Your task to perform on an android device: check android version Image 0: 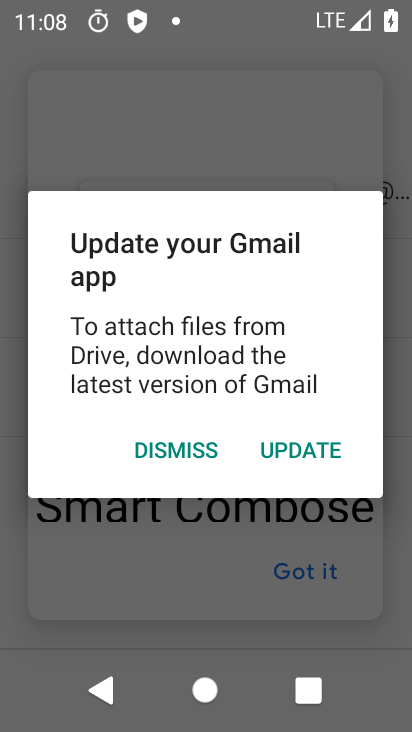
Step 0: press home button
Your task to perform on an android device: check android version Image 1: 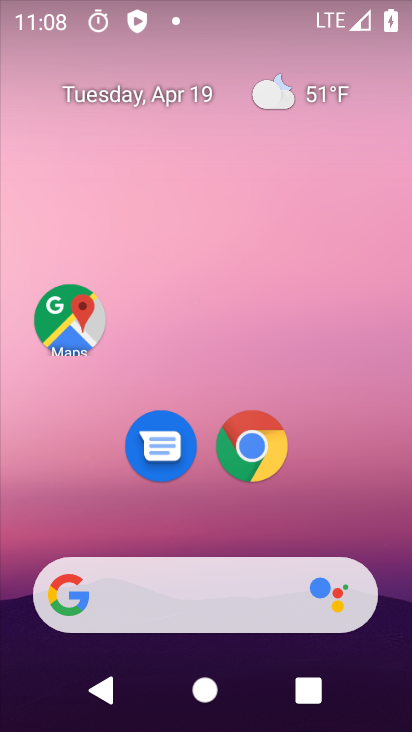
Step 1: click (288, 106)
Your task to perform on an android device: check android version Image 2: 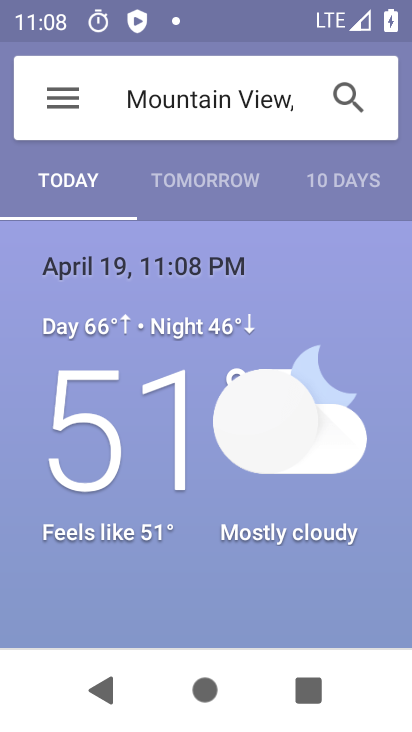
Step 2: press home button
Your task to perform on an android device: check android version Image 3: 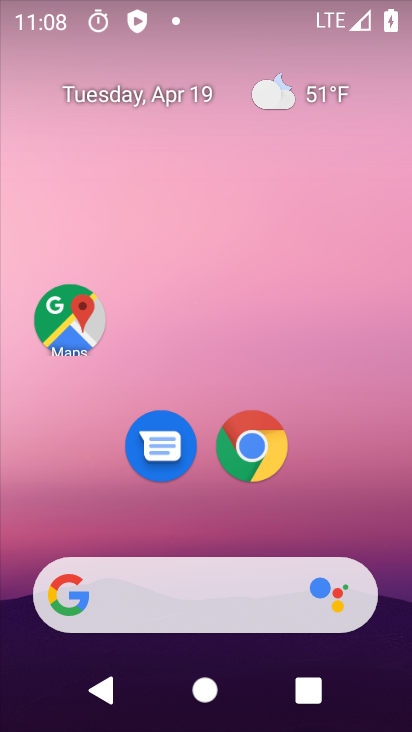
Step 3: drag from (376, 356) to (379, 133)
Your task to perform on an android device: check android version Image 4: 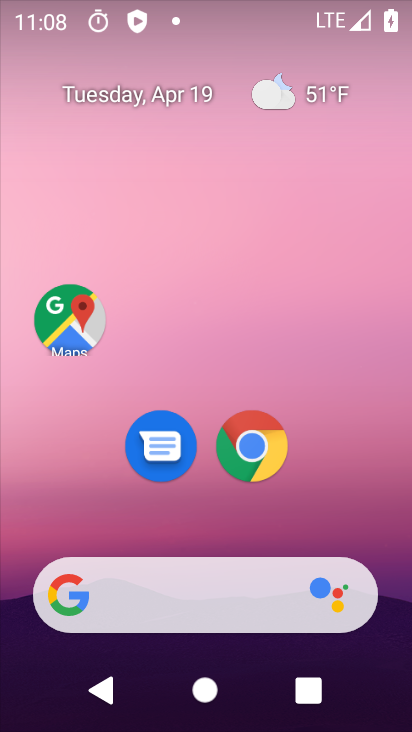
Step 4: drag from (356, 438) to (285, 111)
Your task to perform on an android device: check android version Image 5: 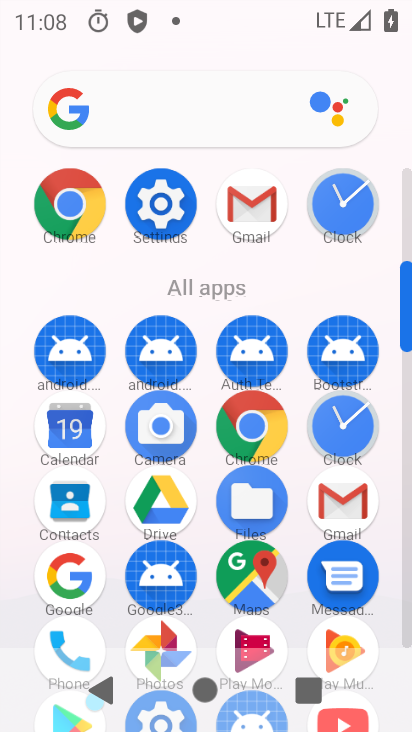
Step 5: click (161, 203)
Your task to perform on an android device: check android version Image 6: 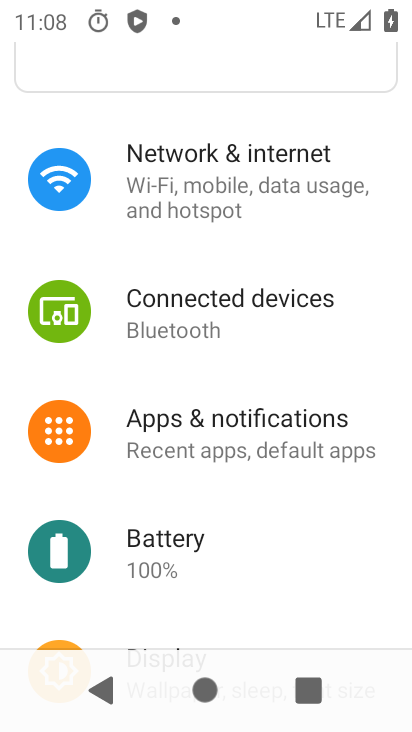
Step 6: drag from (353, 558) to (354, 274)
Your task to perform on an android device: check android version Image 7: 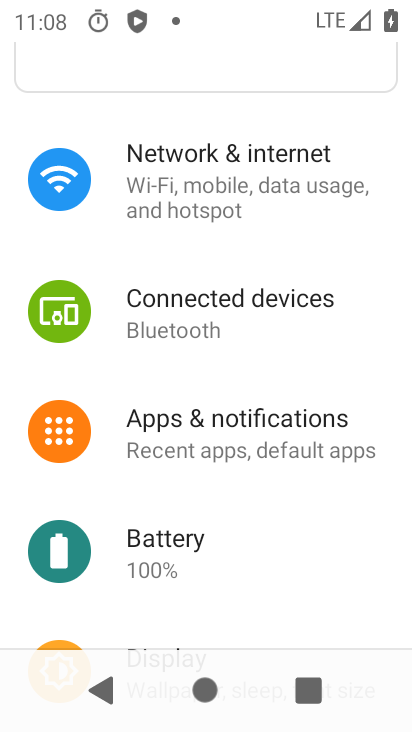
Step 7: drag from (352, 591) to (360, 166)
Your task to perform on an android device: check android version Image 8: 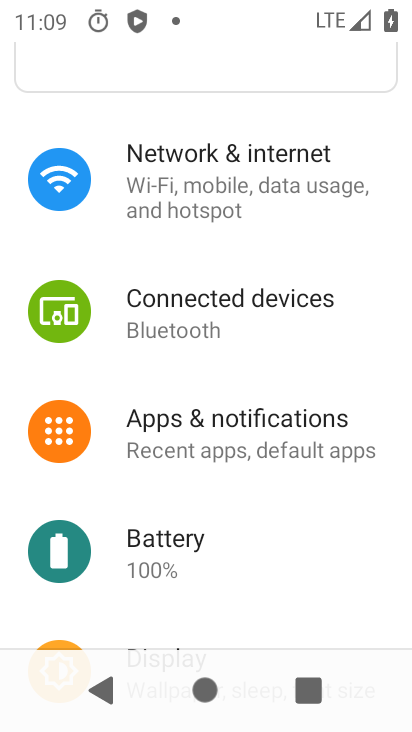
Step 8: drag from (378, 574) to (374, 198)
Your task to perform on an android device: check android version Image 9: 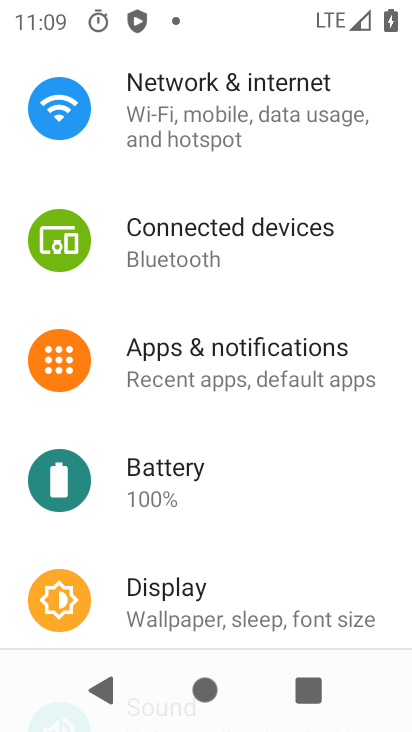
Step 9: drag from (363, 507) to (364, 229)
Your task to perform on an android device: check android version Image 10: 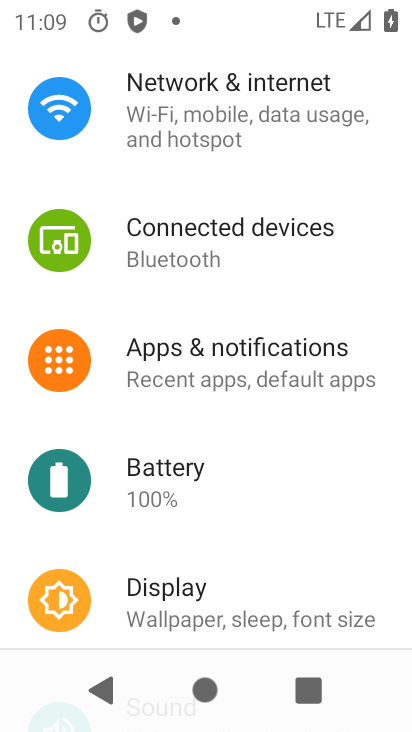
Step 10: drag from (369, 498) to (381, 153)
Your task to perform on an android device: check android version Image 11: 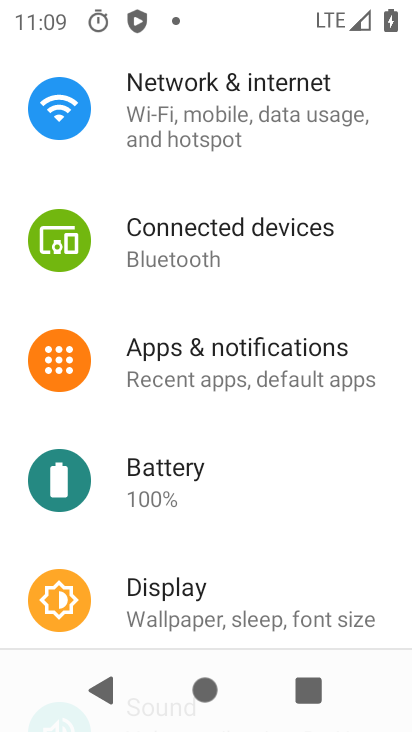
Step 11: drag from (381, 520) to (386, 215)
Your task to perform on an android device: check android version Image 12: 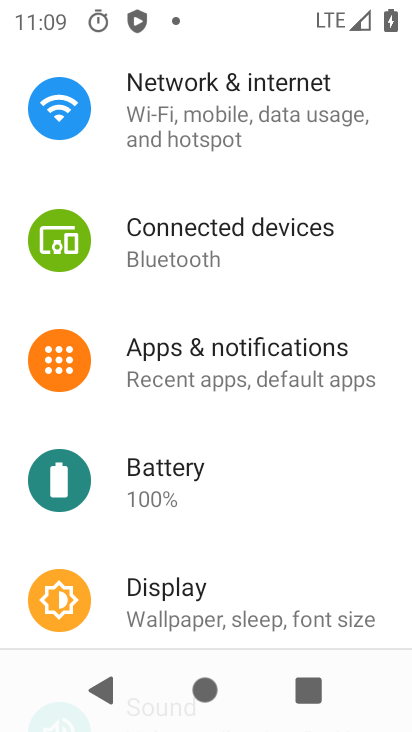
Step 12: drag from (389, 620) to (384, 216)
Your task to perform on an android device: check android version Image 13: 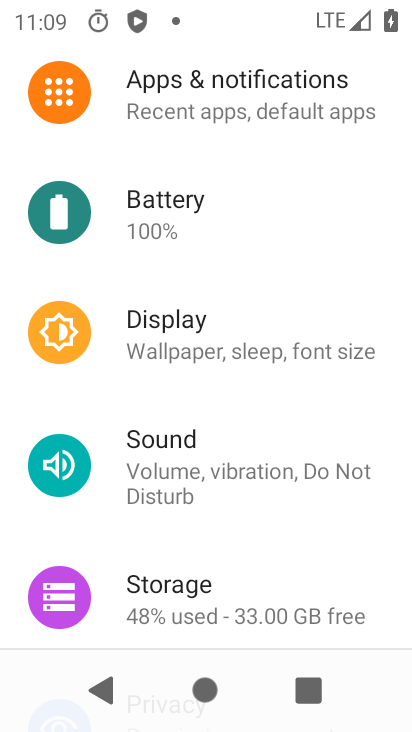
Step 13: drag from (379, 545) to (386, 229)
Your task to perform on an android device: check android version Image 14: 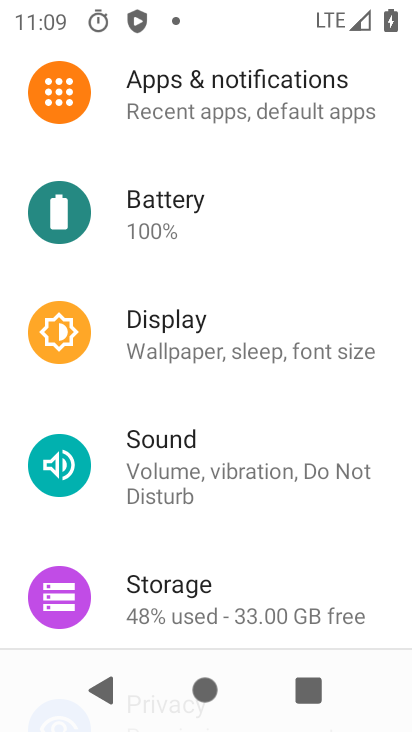
Step 14: drag from (400, 262) to (402, 151)
Your task to perform on an android device: check android version Image 15: 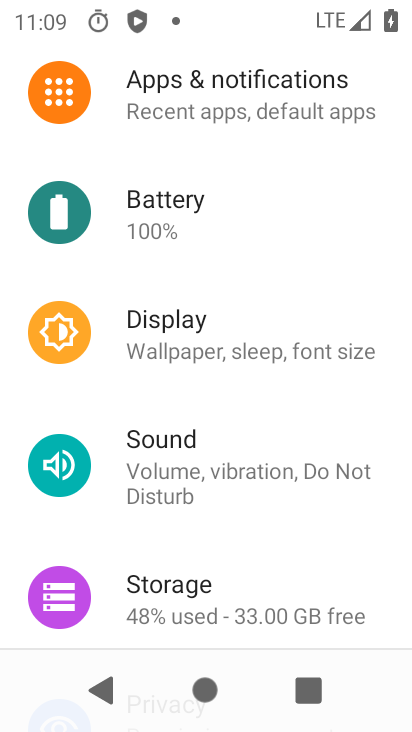
Step 15: drag from (382, 629) to (350, 162)
Your task to perform on an android device: check android version Image 16: 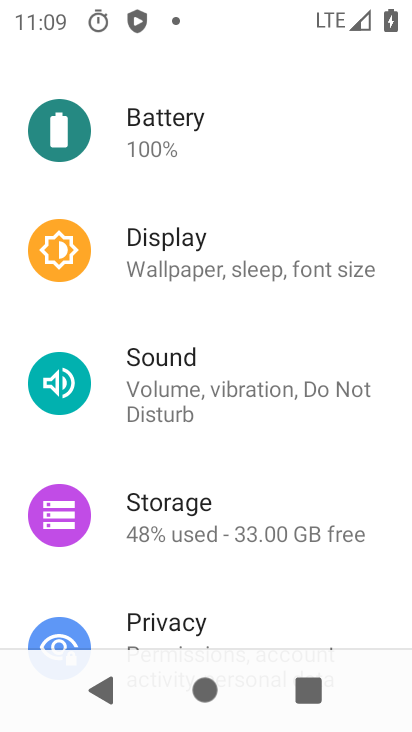
Step 16: drag from (379, 585) to (349, 190)
Your task to perform on an android device: check android version Image 17: 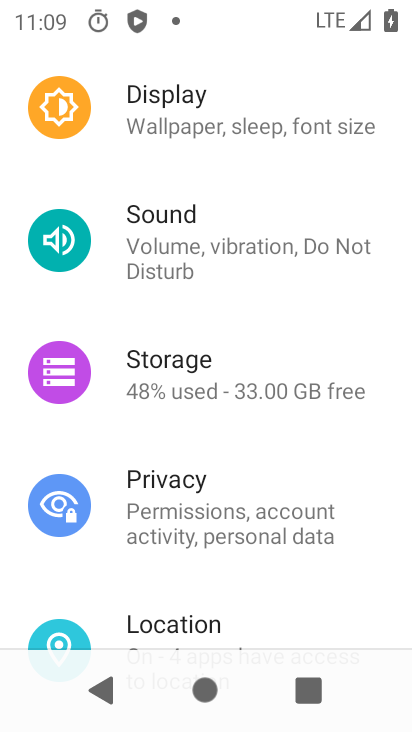
Step 17: drag from (373, 539) to (379, 5)
Your task to perform on an android device: check android version Image 18: 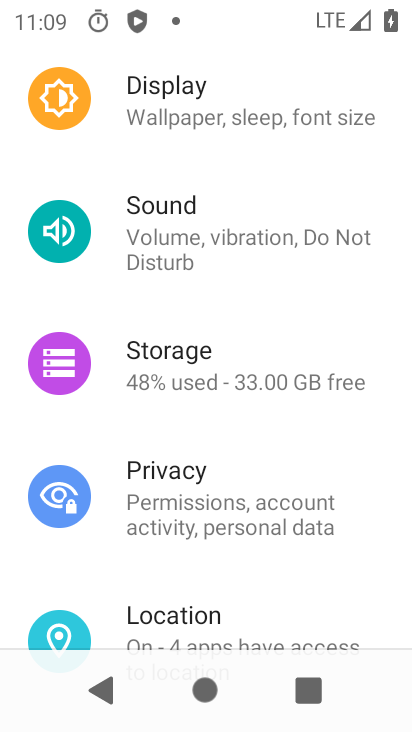
Step 18: drag from (374, 627) to (388, 279)
Your task to perform on an android device: check android version Image 19: 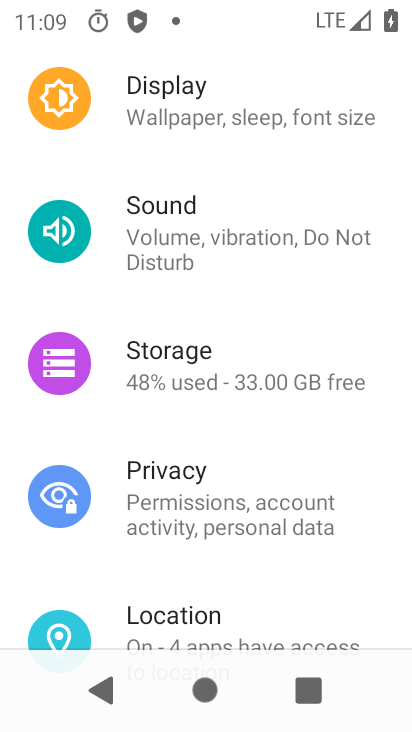
Step 19: drag from (377, 627) to (375, 187)
Your task to perform on an android device: check android version Image 20: 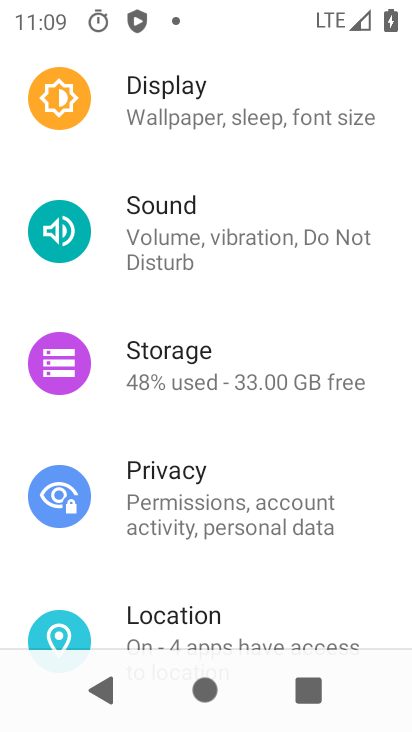
Step 20: drag from (368, 587) to (364, 244)
Your task to perform on an android device: check android version Image 21: 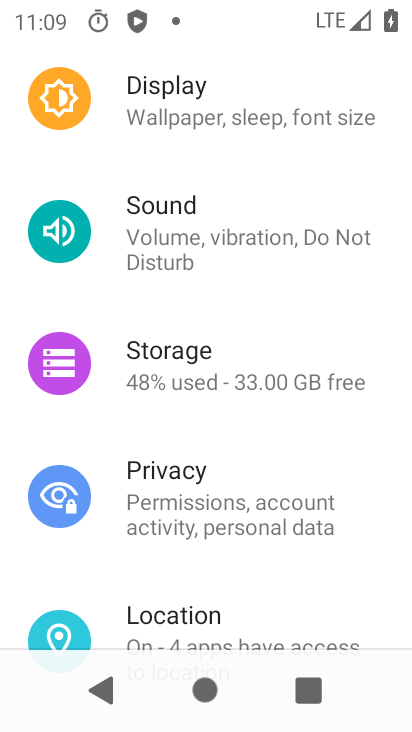
Step 21: drag from (359, 366) to (360, 242)
Your task to perform on an android device: check android version Image 22: 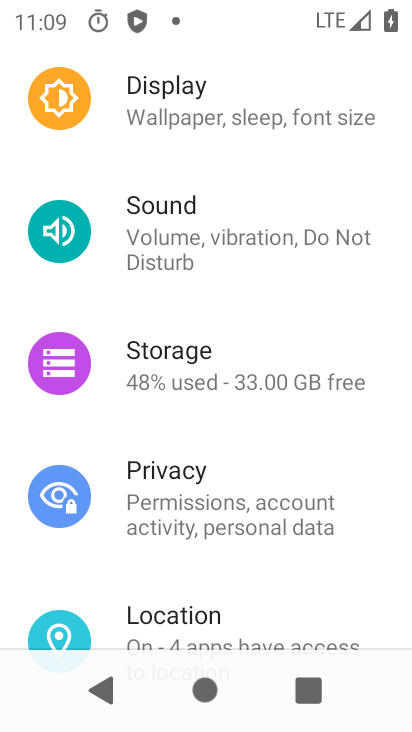
Step 22: drag from (377, 527) to (364, 133)
Your task to perform on an android device: check android version Image 23: 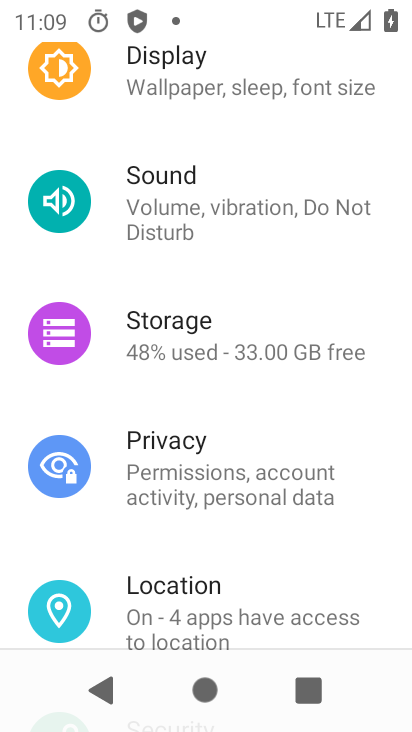
Step 23: drag from (391, 558) to (370, 228)
Your task to perform on an android device: check android version Image 24: 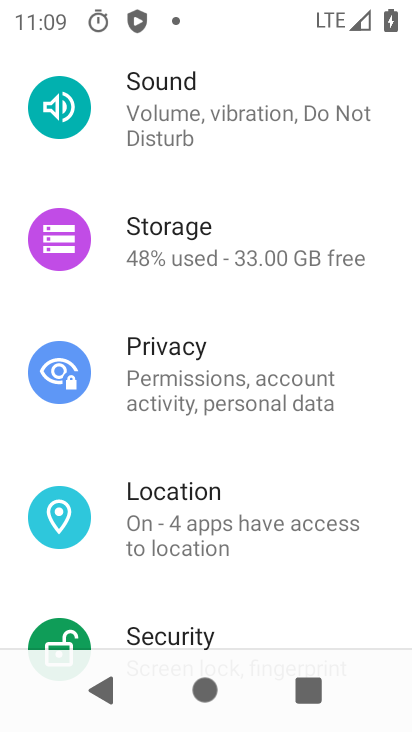
Step 24: drag from (359, 255) to (353, 174)
Your task to perform on an android device: check android version Image 25: 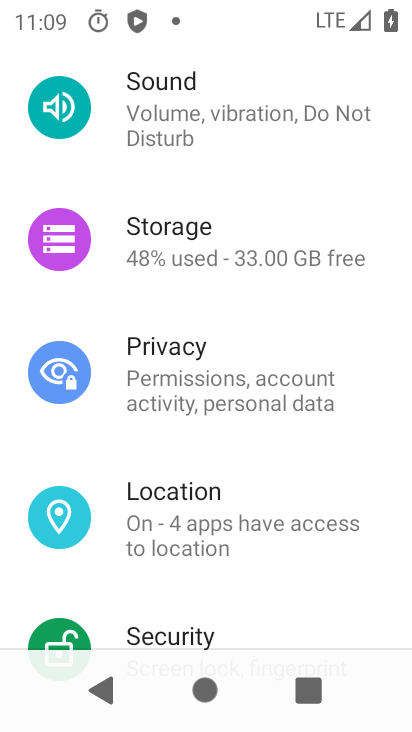
Step 25: drag from (374, 583) to (402, 92)
Your task to perform on an android device: check android version Image 26: 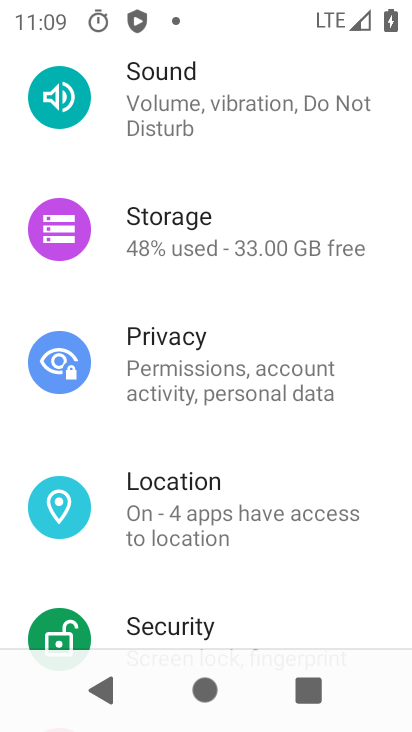
Step 26: drag from (385, 601) to (372, 330)
Your task to perform on an android device: check android version Image 27: 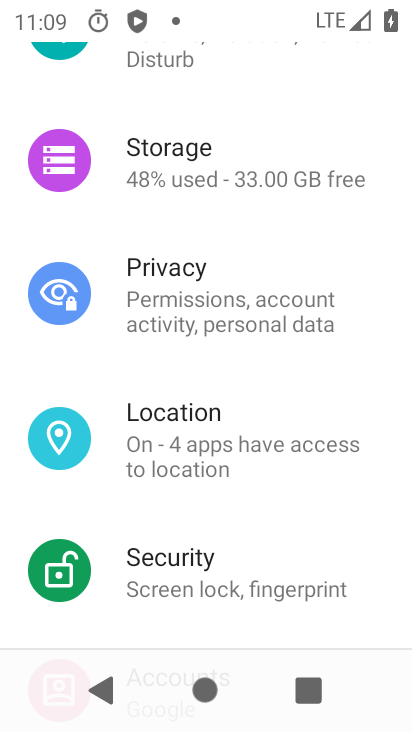
Step 27: drag from (360, 525) to (357, 299)
Your task to perform on an android device: check android version Image 28: 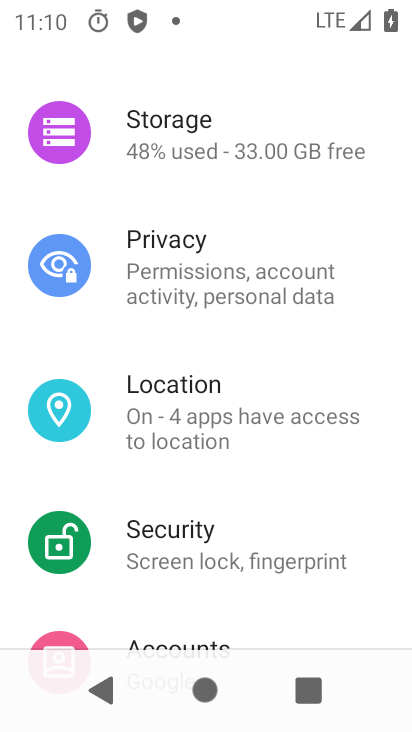
Step 28: drag from (375, 551) to (358, 196)
Your task to perform on an android device: check android version Image 29: 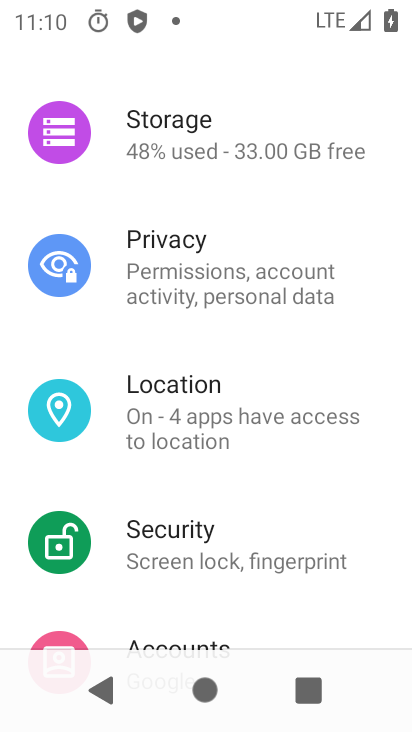
Step 29: drag from (356, 571) to (341, 275)
Your task to perform on an android device: check android version Image 30: 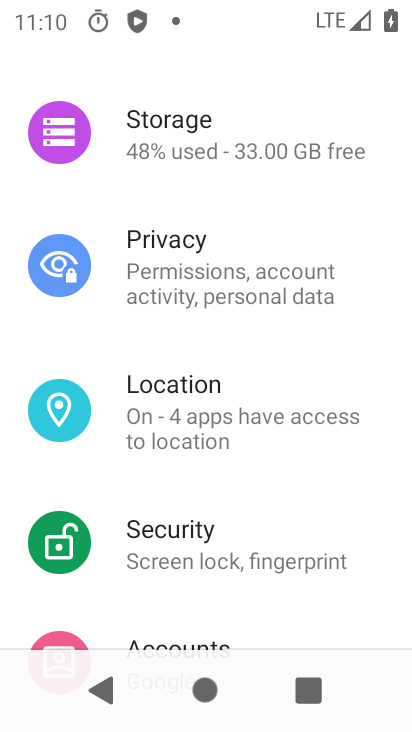
Step 30: drag from (368, 554) to (374, 255)
Your task to perform on an android device: check android version Image 31: 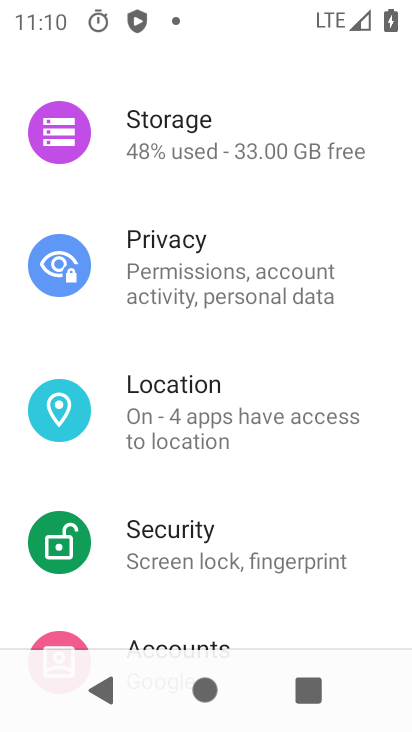
Step 31: drag from (374, 547) to (373, 160)
Your task to perform on an android device: check android version Image 32: 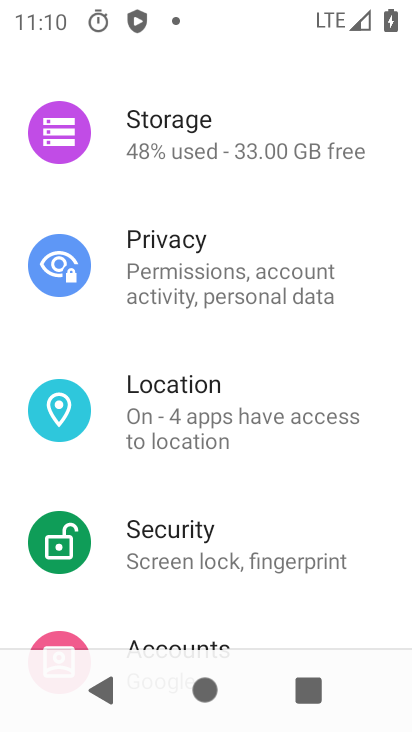
Step 32: drag from (376, 602) to (354, 140)
Your task to perform on an android device: check android version Image 33: 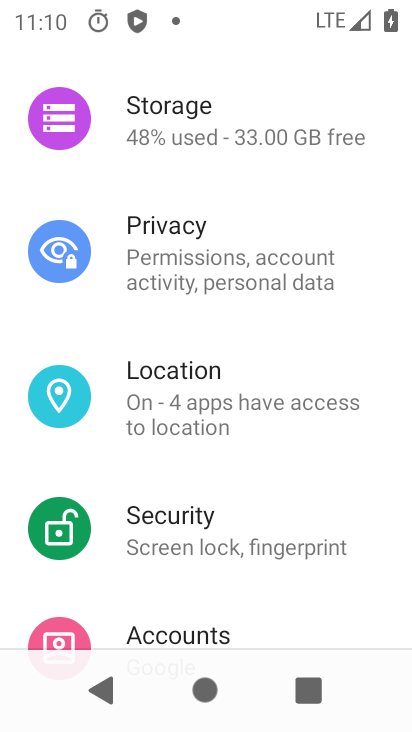
Step 33: drag from (369, 596) to (332, 183)
Your task to perform on an android device: check android version Image 34: 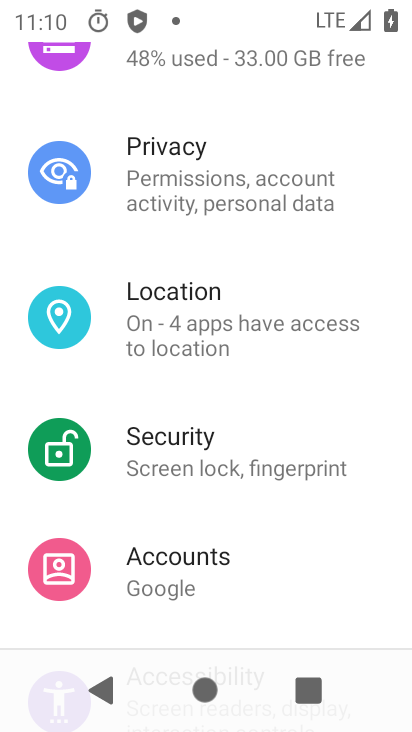
Step 34: drag from (384, 388) to (374, 265)
Your task to perform on an android device: check android version Image 35: 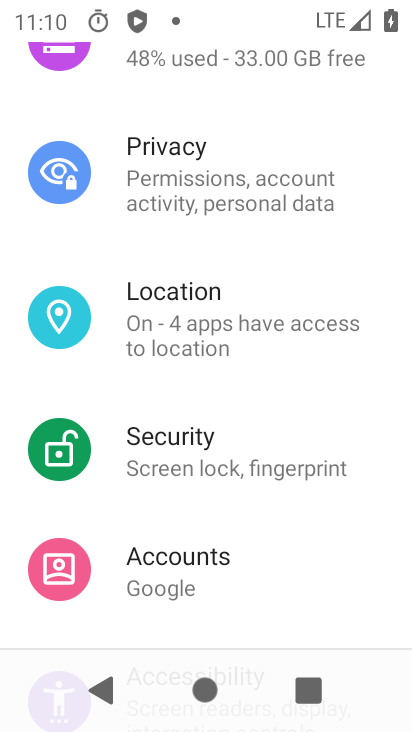
Step 35: drag from (372, 422) to (345, 159)
Your task to perform on an android device: check android version Image 36: 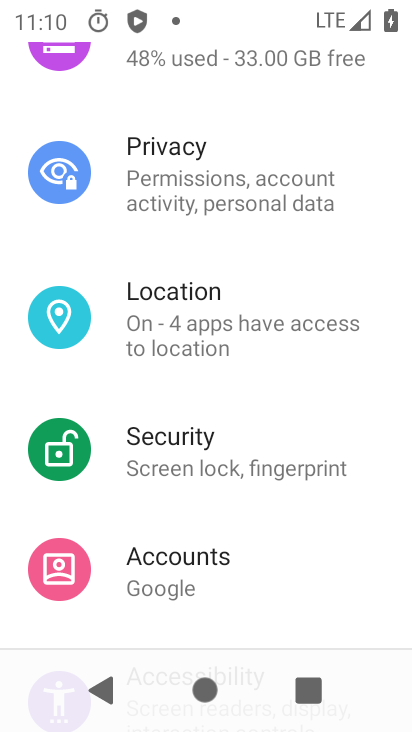
Step 36: drag from (345, 436) to (348, 154)
Your task to perform on an android device: check android version Image 37: 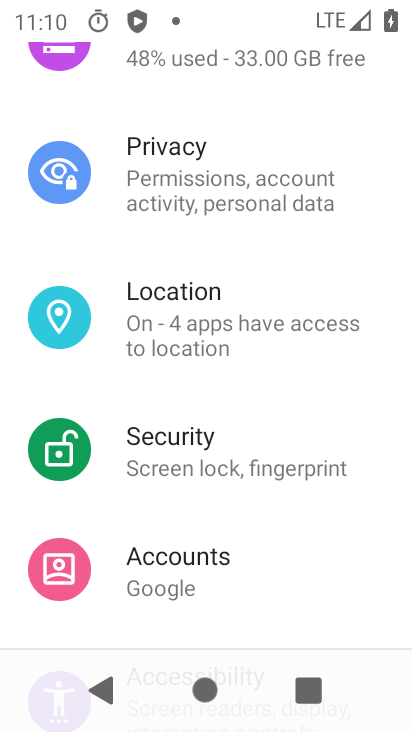
Step 37: drag from (363, 401) to (364, 114)
Your task to perform on an android device: check android version Image 38: 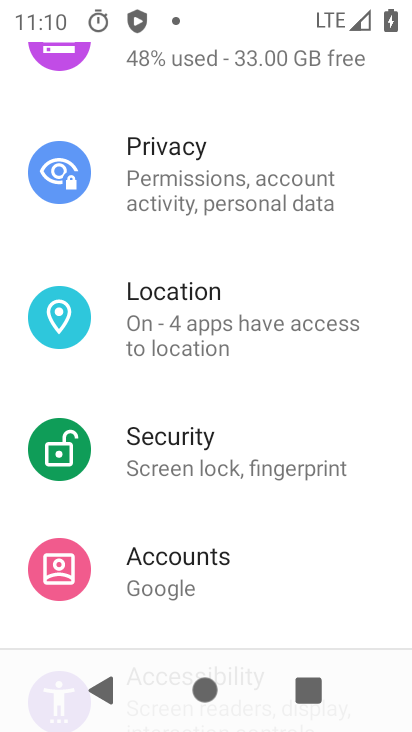
Step 38: drag from (344, 253) to (343, 129)
Your task to perform on an android device: check android version Image 39: 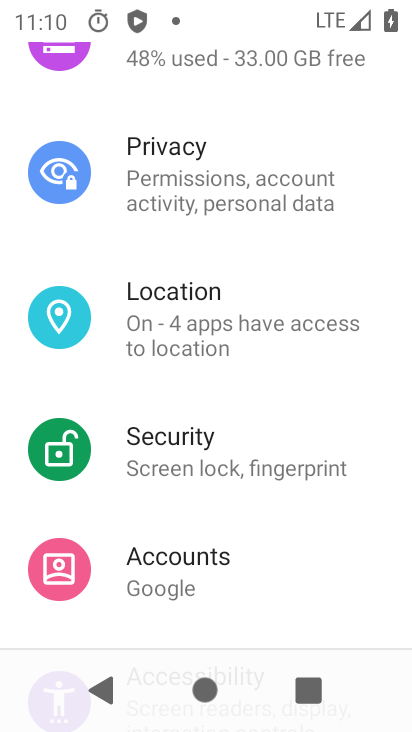
Step 39: drag from (368, 276) to (373, 98)
Your task to perform on an android device: check android version Image 40: 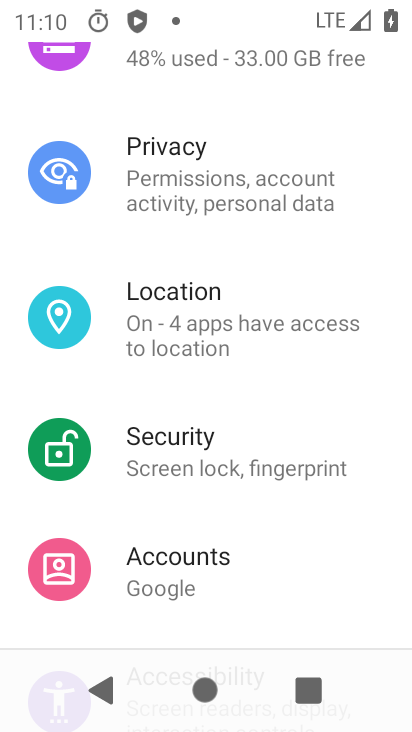
Step 40: drag from (360, 608) to (325, 183)
Your task to perform on an android device: check android version Image 41: 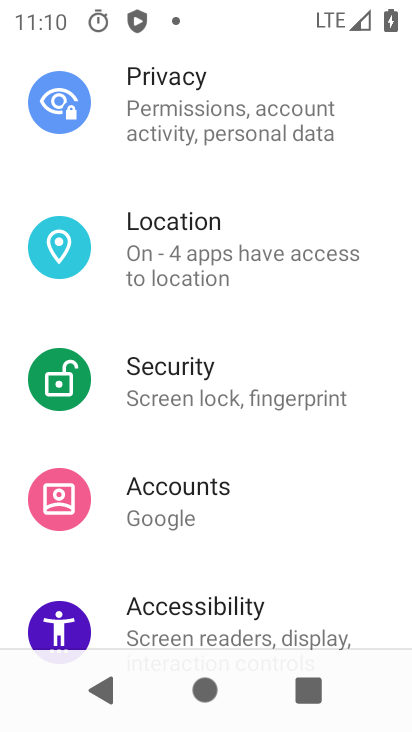
Step 41: drag from (382, 603) to (360, 182)
Your task to perform on an android device: check android version Image 42: 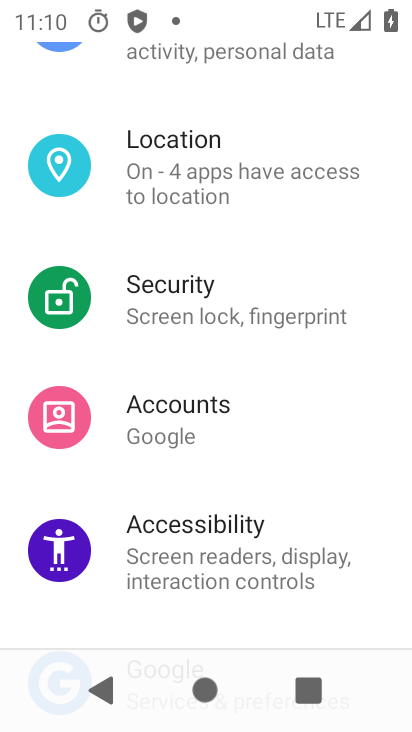
Step 42: drag from (384, 322) to (396, 140)
Your task to perform on an android device: check android version Image 43: 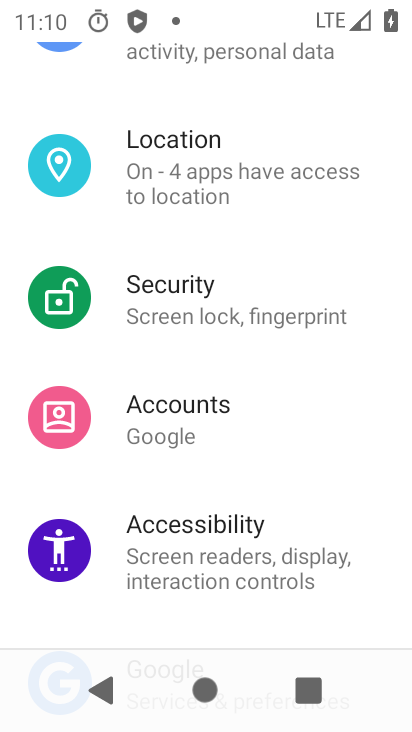
Step 43: drag from (384, 328) to (381, 155)
Your task to perform on an android device: check android version Image 44: 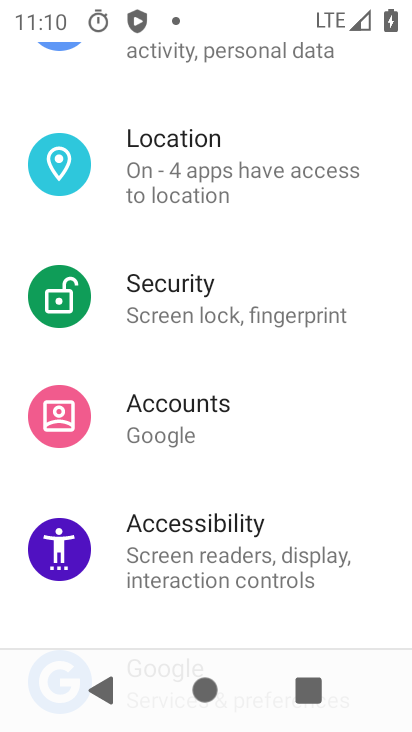
Step 44: drag from (386, 536) to (400, 161)
Your task to perform on an android device: check android version Image 45: 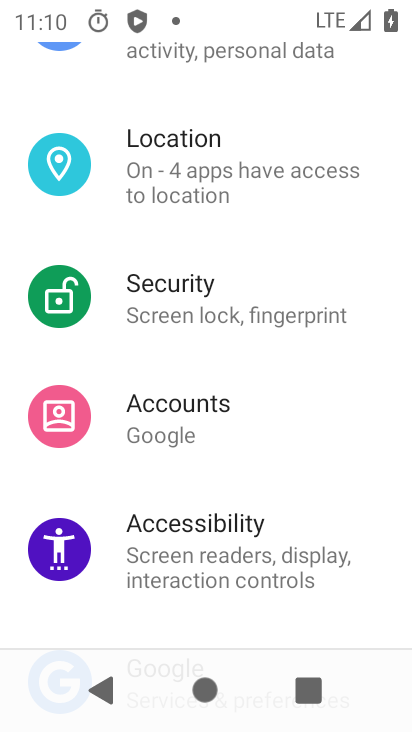
Step 45: drag from (410, 455) to (408, 160)
Your task to perform on an android device: check android version Image 46: 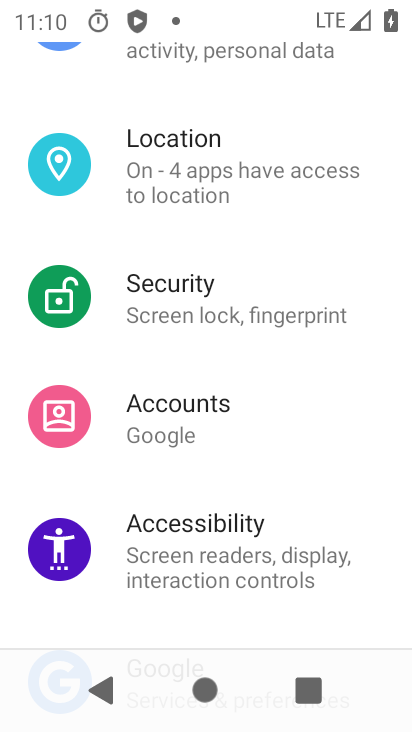
Step 46: drag from (395, 464) to (391, 178)
Your task to perform on an android device: check android version Image 47: 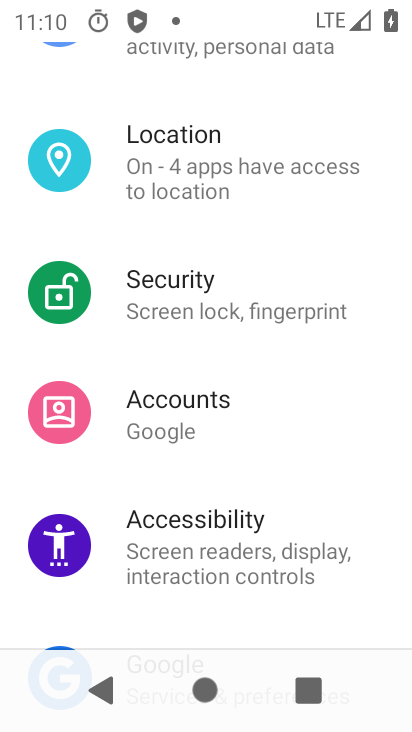
Step 47: drag from (365, 585) to (373, 171)
Your task to perform on an android device: check android version Image 48: 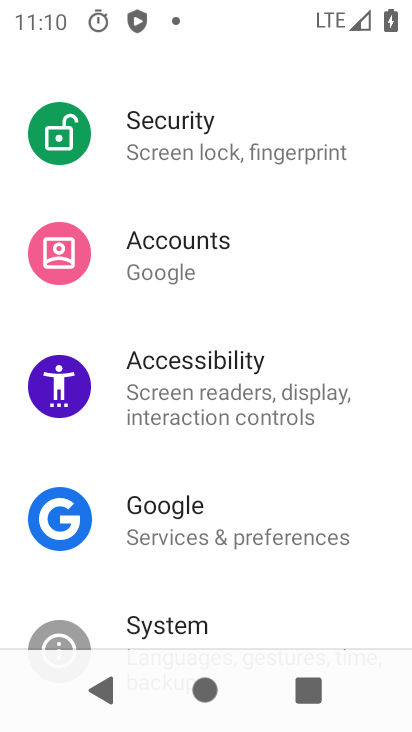
Step 48: drag from (347, 597) to (364, 194)
Your task to perform on an android device: check android version Image 49: 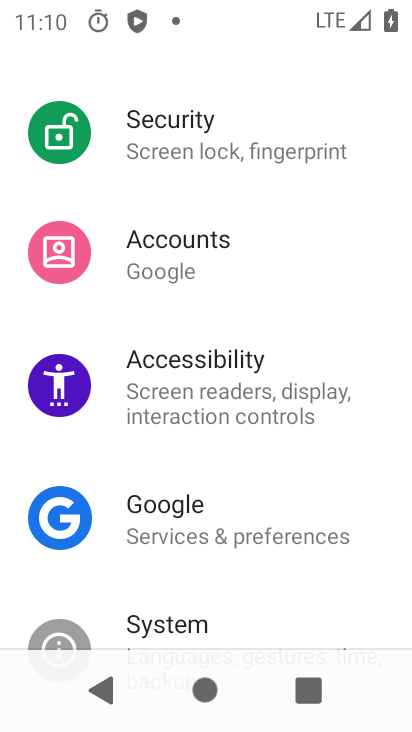
Step 49: drag from (377, 399) to (371, 116)
Your task to perform on an android device: check android version Image 50: 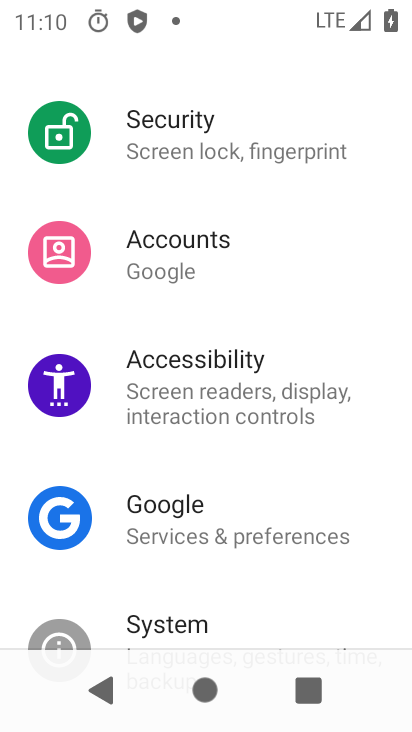
Step 50: drag from (387, 635) to (394, 202)
Your task to perform on an android device: check android version Image 51: 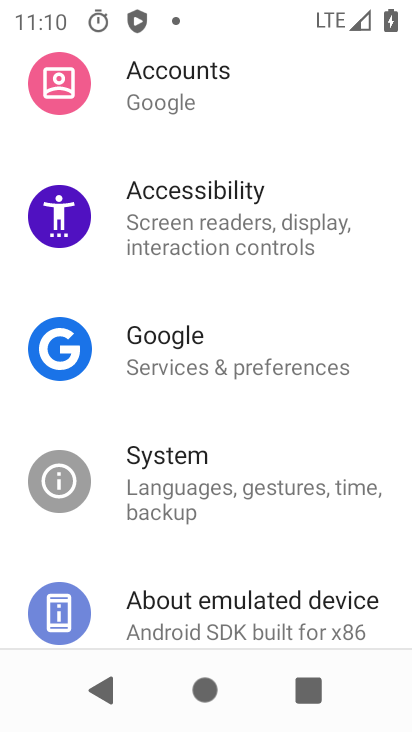
Step 51: click (156, 609)
Your task to perform on an android device: check android version Image 52: 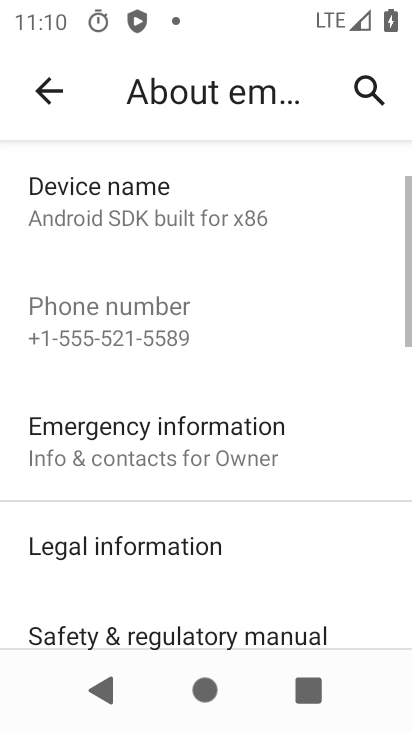
Step 52: drag from (391, 594) to (383, 93)
Your task to perform on an android device: check android version Image 53: 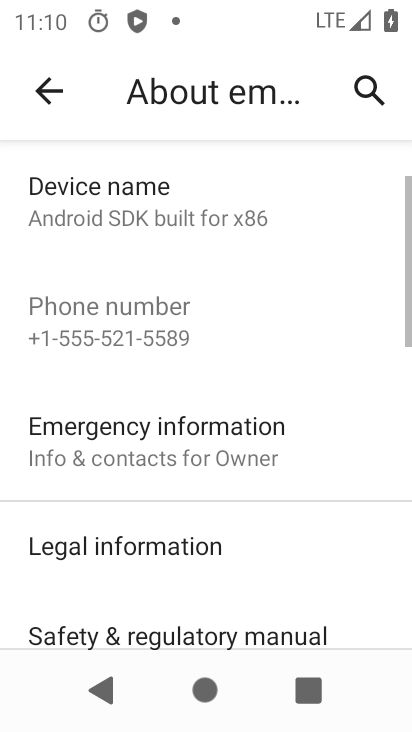
Step 53: drag from (355, 546) to (366, 232)
Your task to perform on an android device: check android version Image 54: 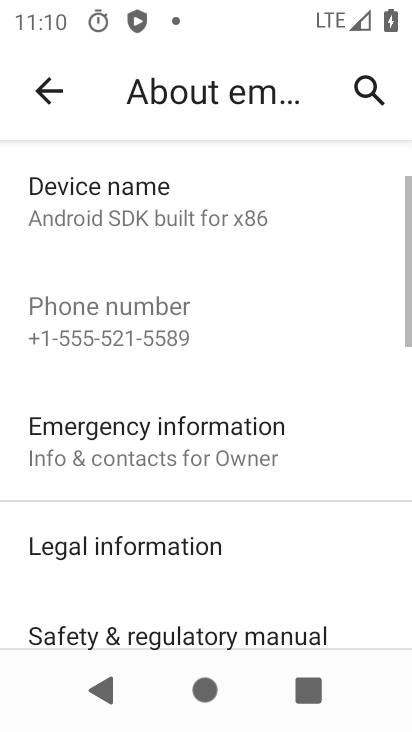
Step 54: drag from (380, 612) to (388, 220)
Your task to perform on an android device: check android version Image 55: 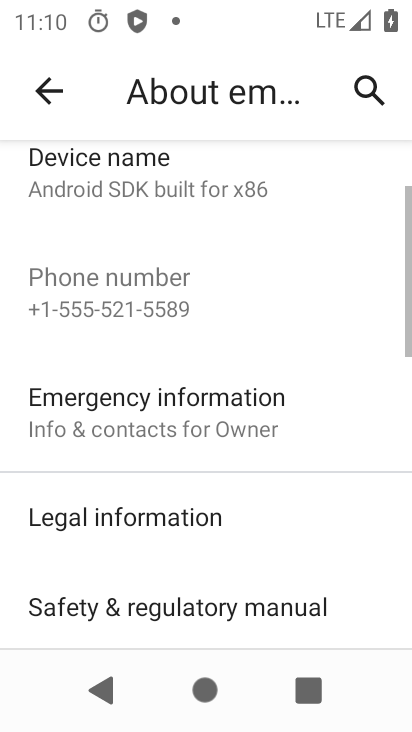
Step 55: drag from (378, 621) to (370, 252)
Your task to perform on an android device: check android version Image 56: 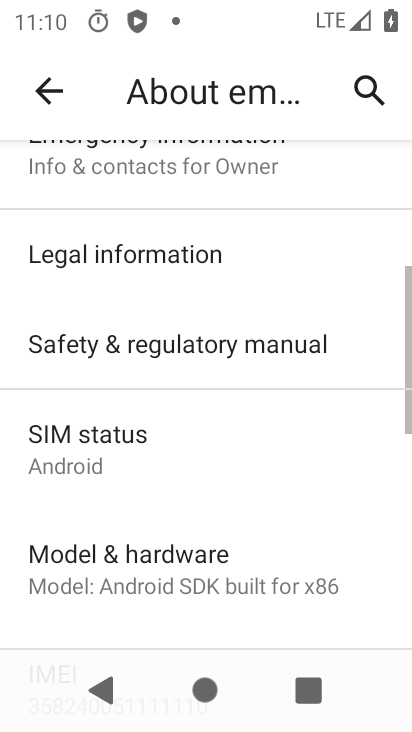
Step 56: drag from (359, 592) to (351, 254)
Your task to perform on an android device: check android version Image 57: 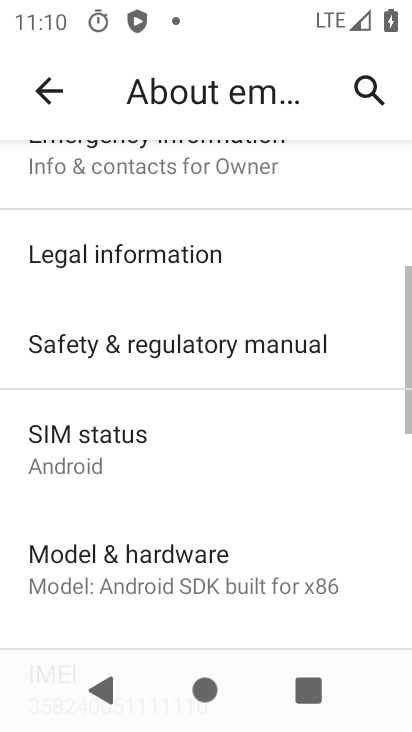
Step 57: drag from (354, 629) to (347, 128)
Your task to perform on an android device: check android version Image 58: 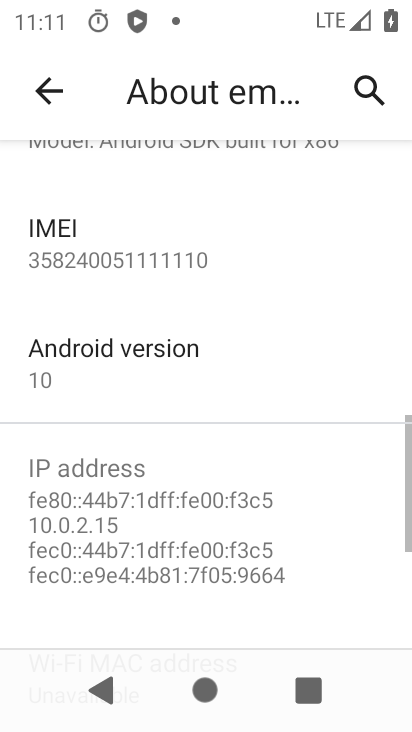
Step 58: click (65, 348)
Your task to perform on an android device: check android version Image 59: 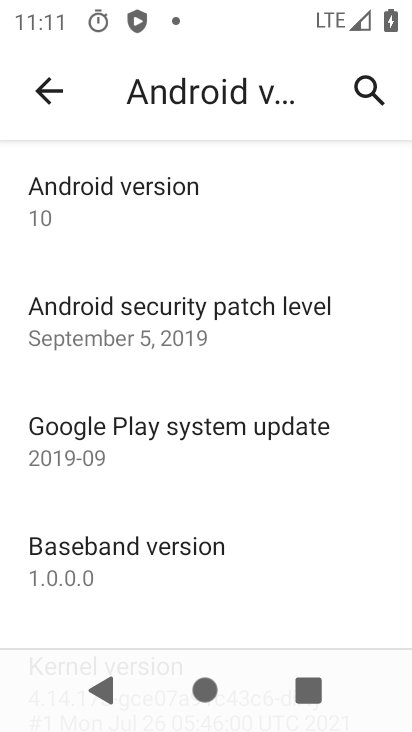
Step 59: click (57, 175)
Your task to perform on an android device: check android version Image 60: 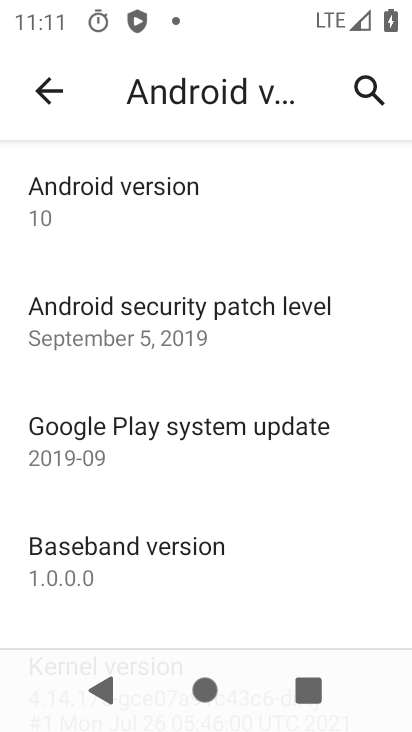
Step 60: task complete